Your task to perform on an android device: When is my next appointment? Image 0: 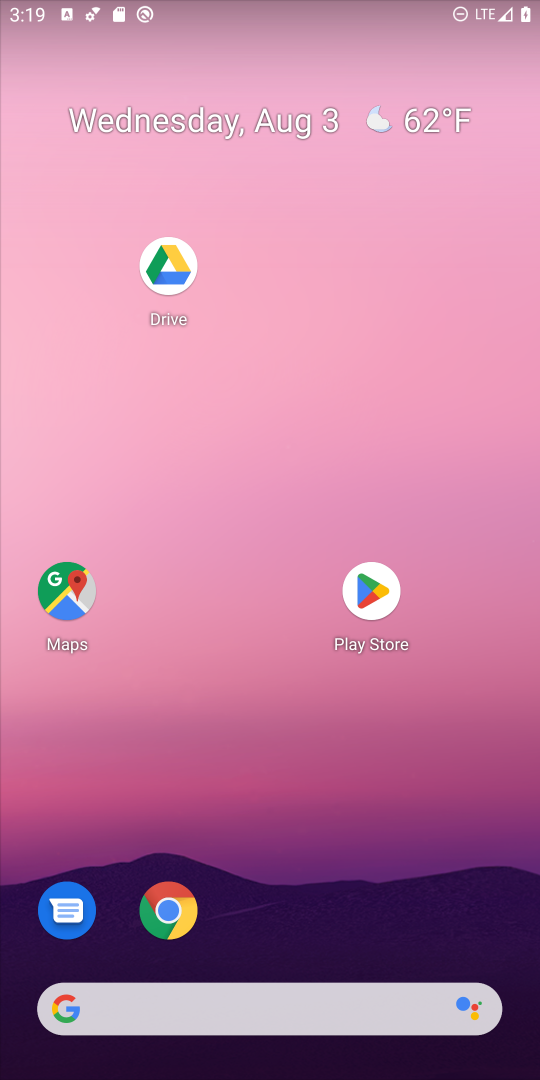
Step 0: drag from (253, 515) to (321, 31)
Your task to perform on an android device: When is my next appointment? Image 1: 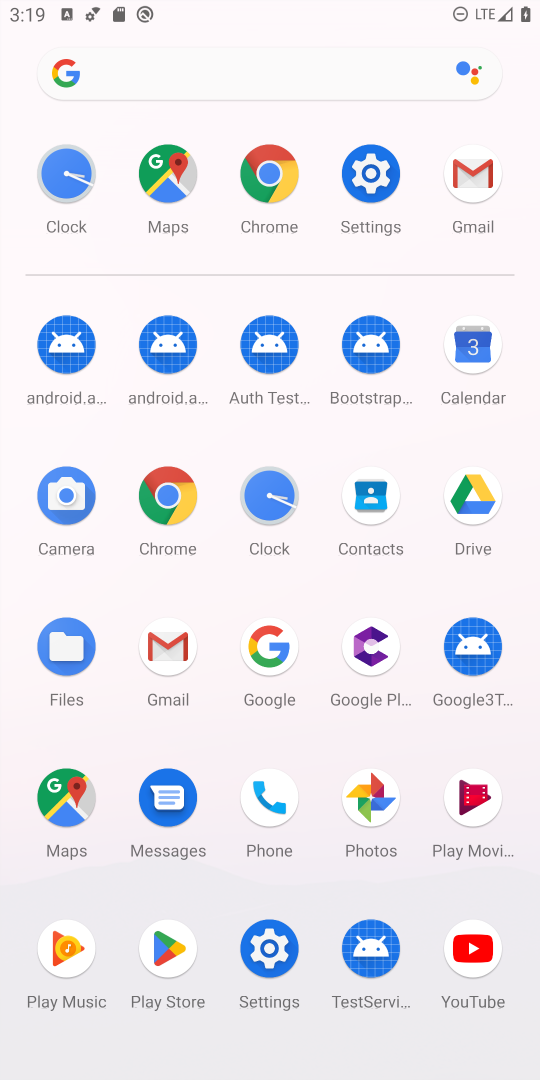
Step 1: click (482, 362)
Your task to perform on an android device: When is my next appointment? Image 2: 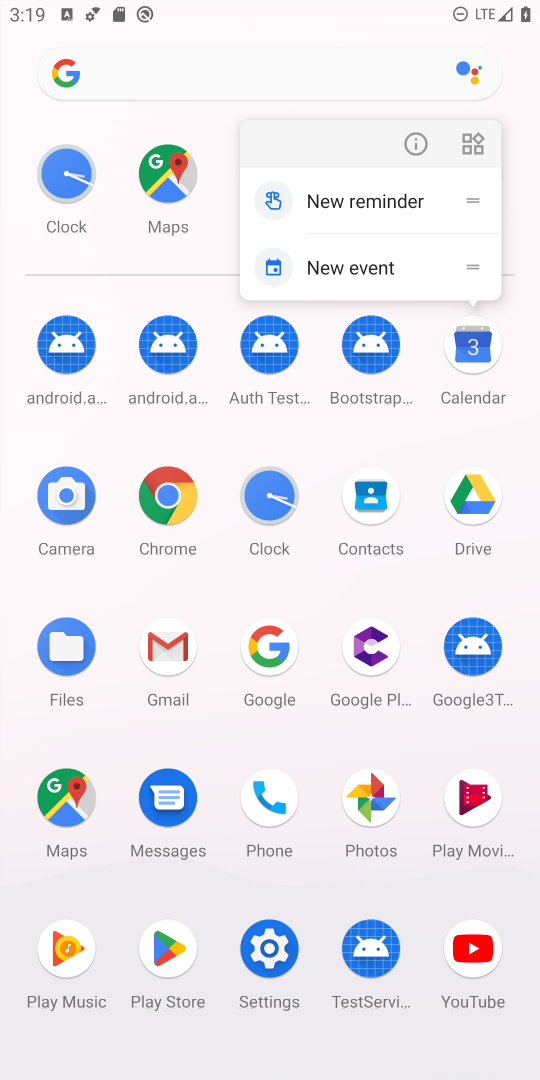
Step 2: click (490, 360)
Your task to perform on an android device: When is my next appointment? Image 3: 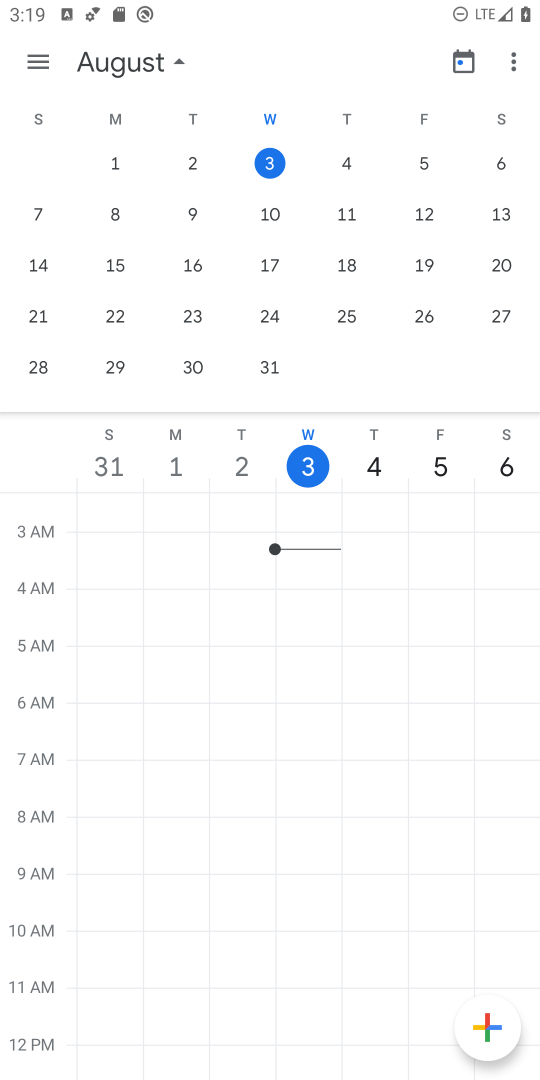
Step 3: click (347, 160)
Your task to perform on an android device: When is my next appointment? Image 4: 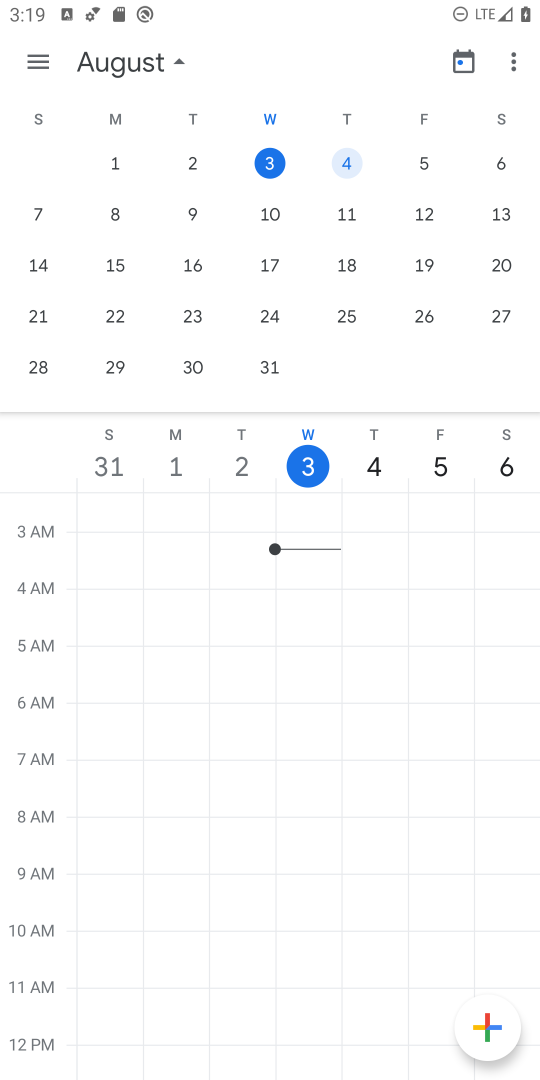
Step 4: task complete